Your task to perform on an android device: Add acer predator to the cart on newegg Image 0: 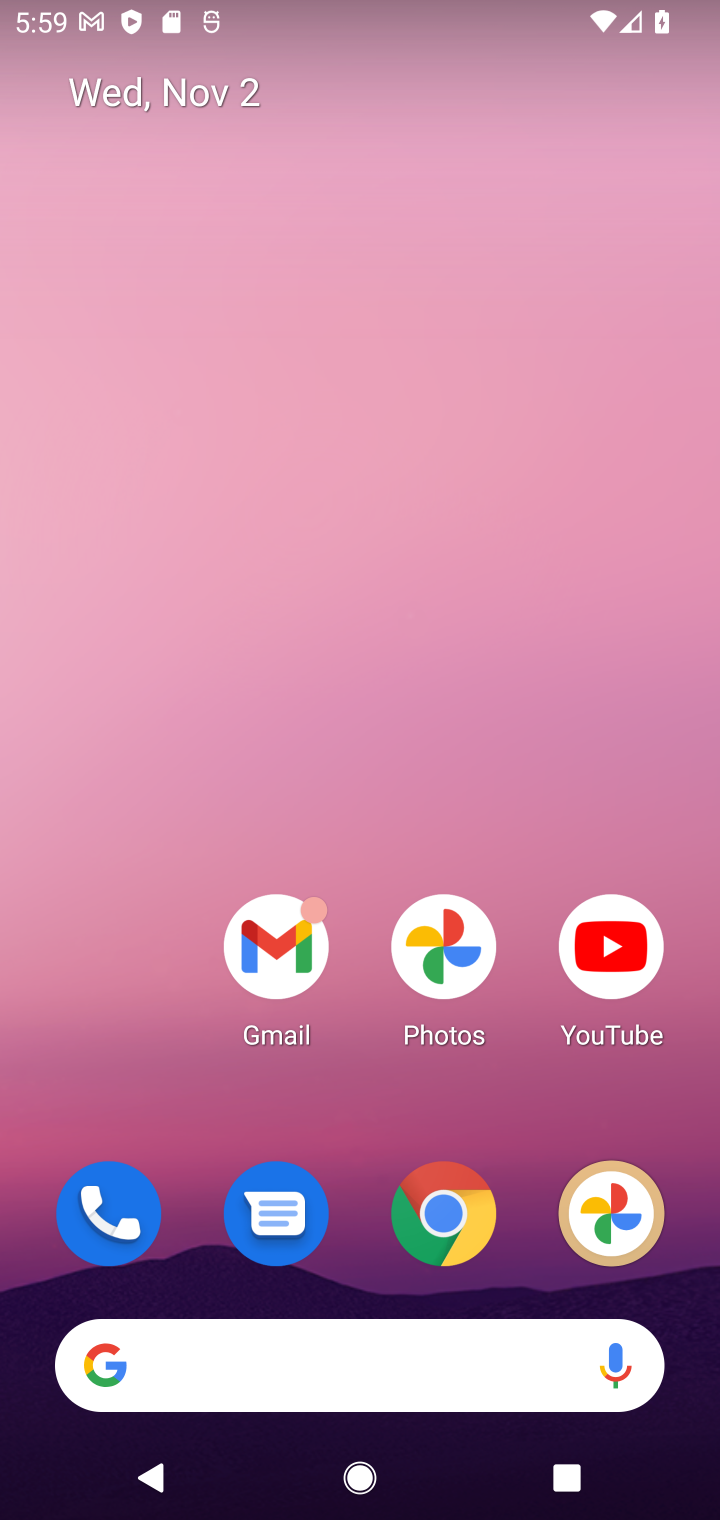
Step 0: click (451, 1209)
Your task to perform on an android device: Add acer predator to the cart on newegg Image 1: 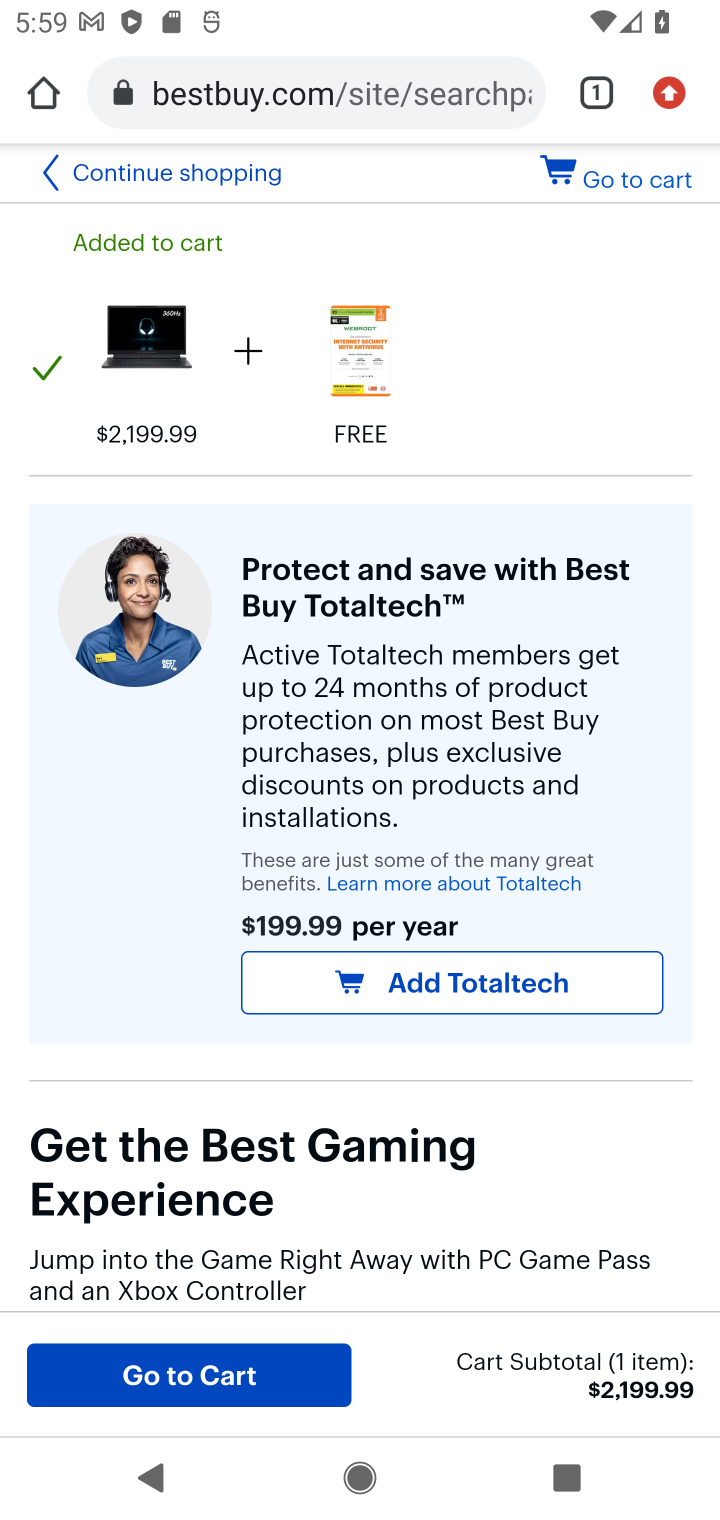
Step 1: click (385, 63)
Your task to perform on an android device: Add acer predator to the cart on newegg Image 2: 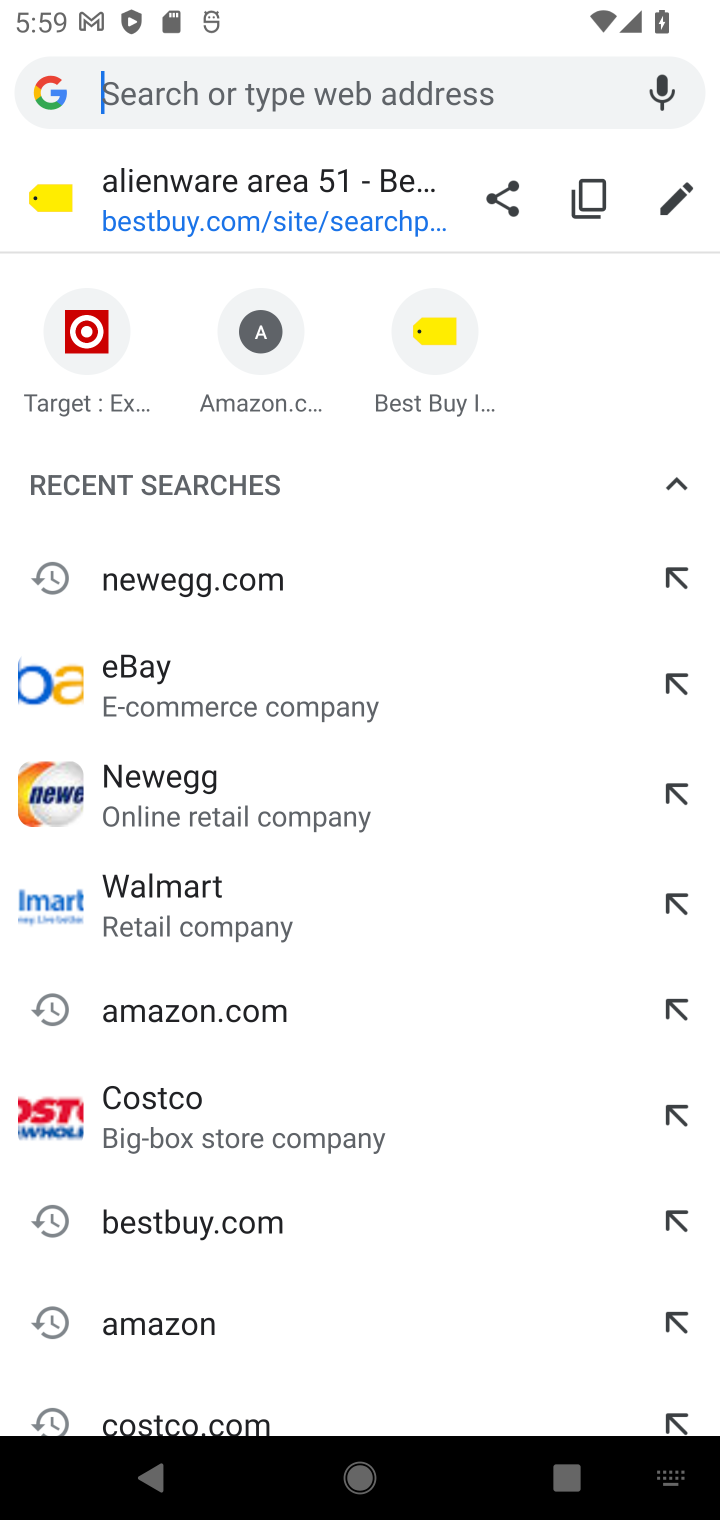
Step 2: click (111, 782)
Your task to perform on an android device: Add acer predator to the cart on newegg Image 3: 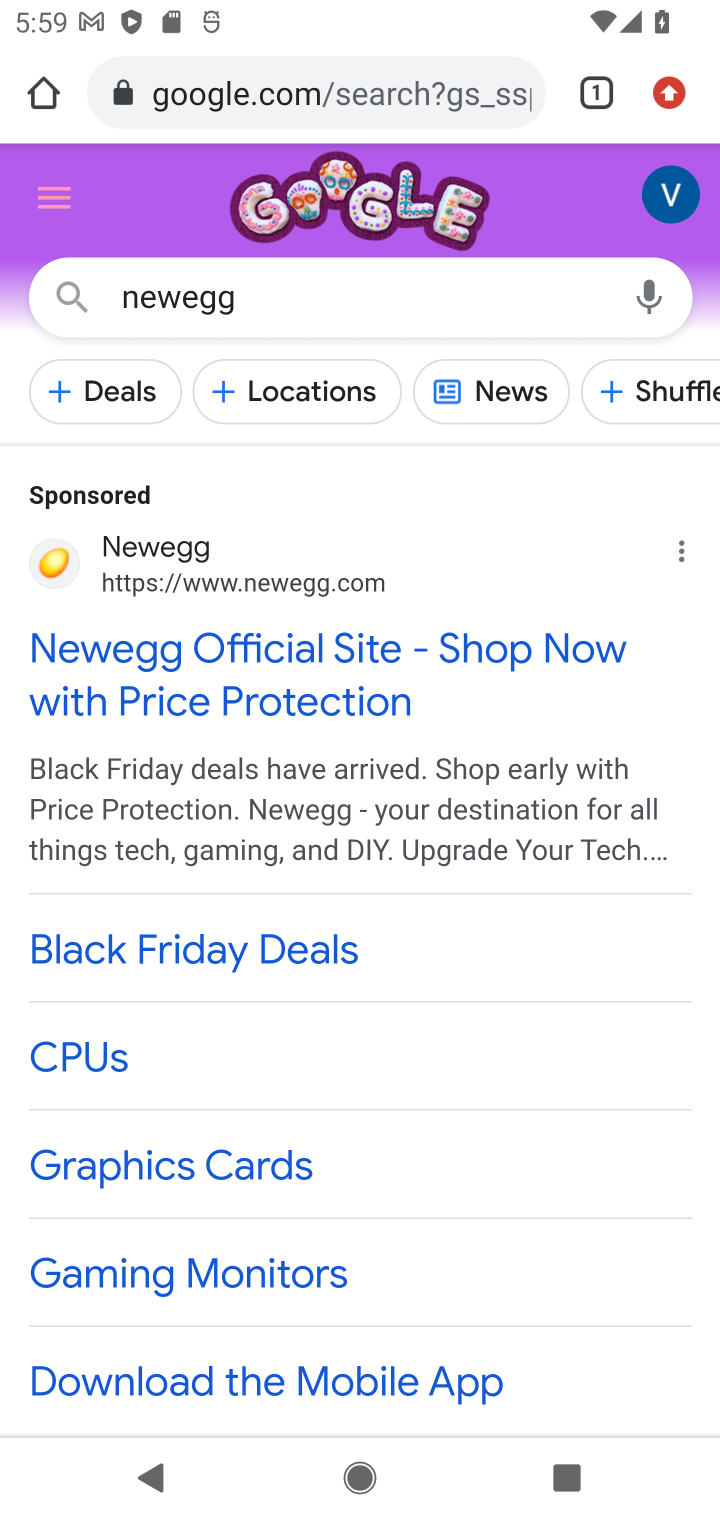
Step 3: click (158, 645)
Your task to perform on an android device: Add acer predator to the cart on newegg Image 4: 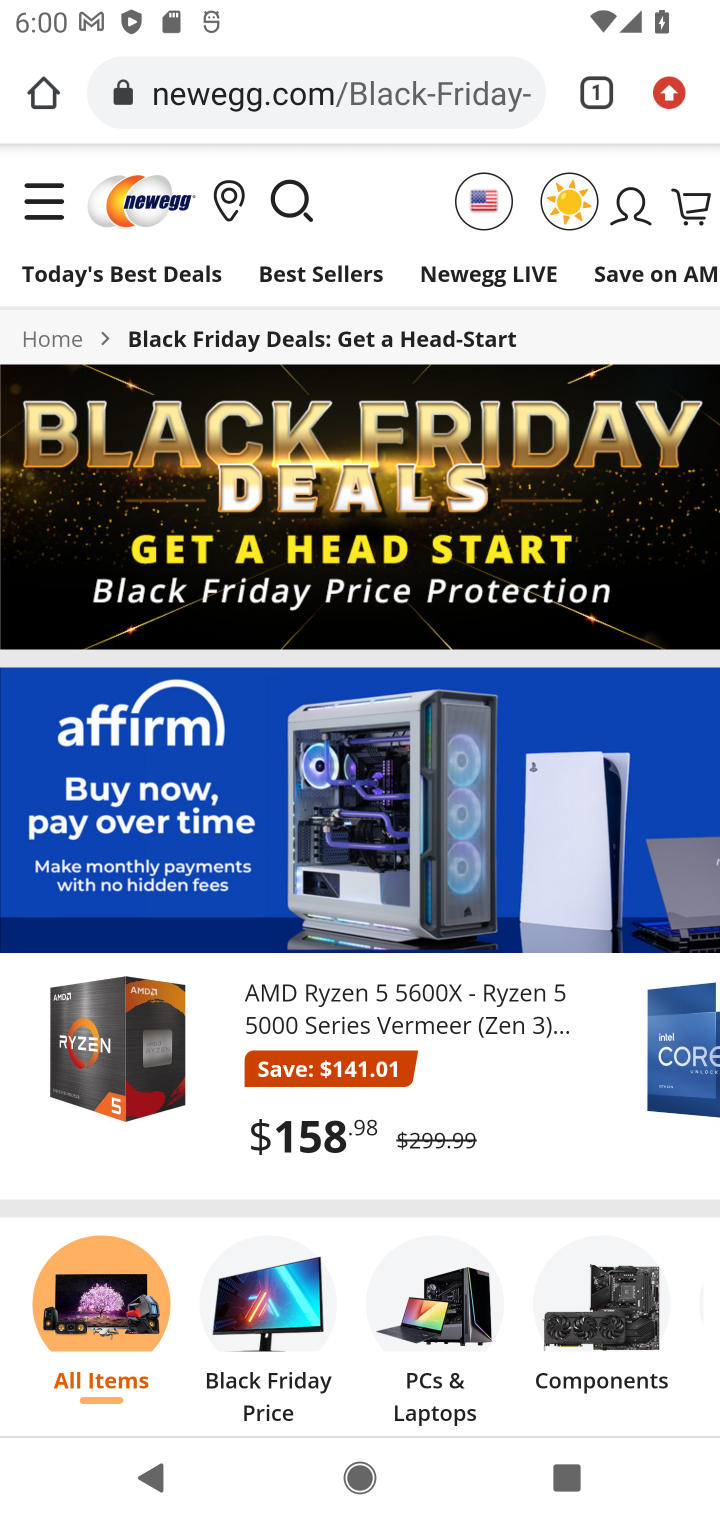
Step 4: click (290, 202)
Your task to perform on an android device: Add acer predator to the cart on newegg Image 5: 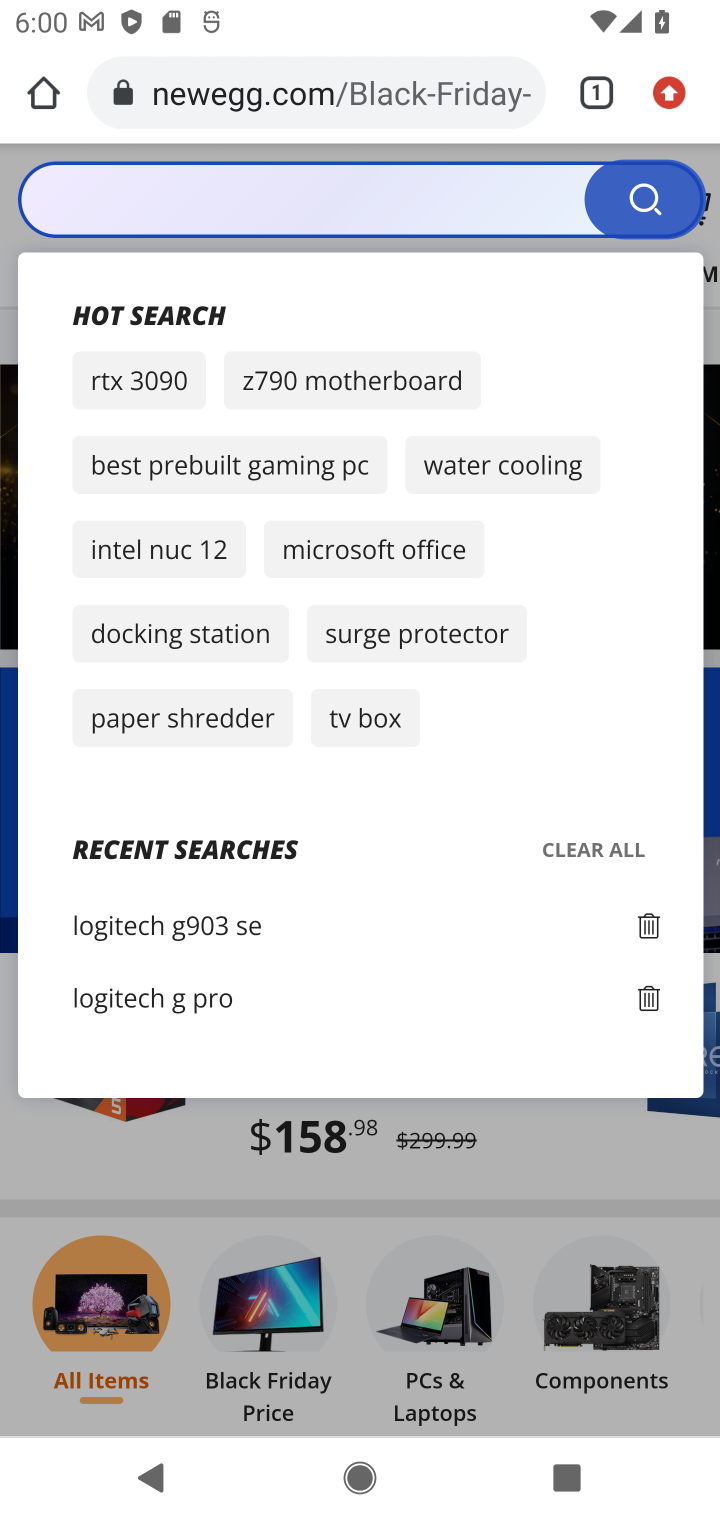
Step 5: click (126, 201)
Your task to perform on an android device: Add acer predator to the cart on newegg Image 6: 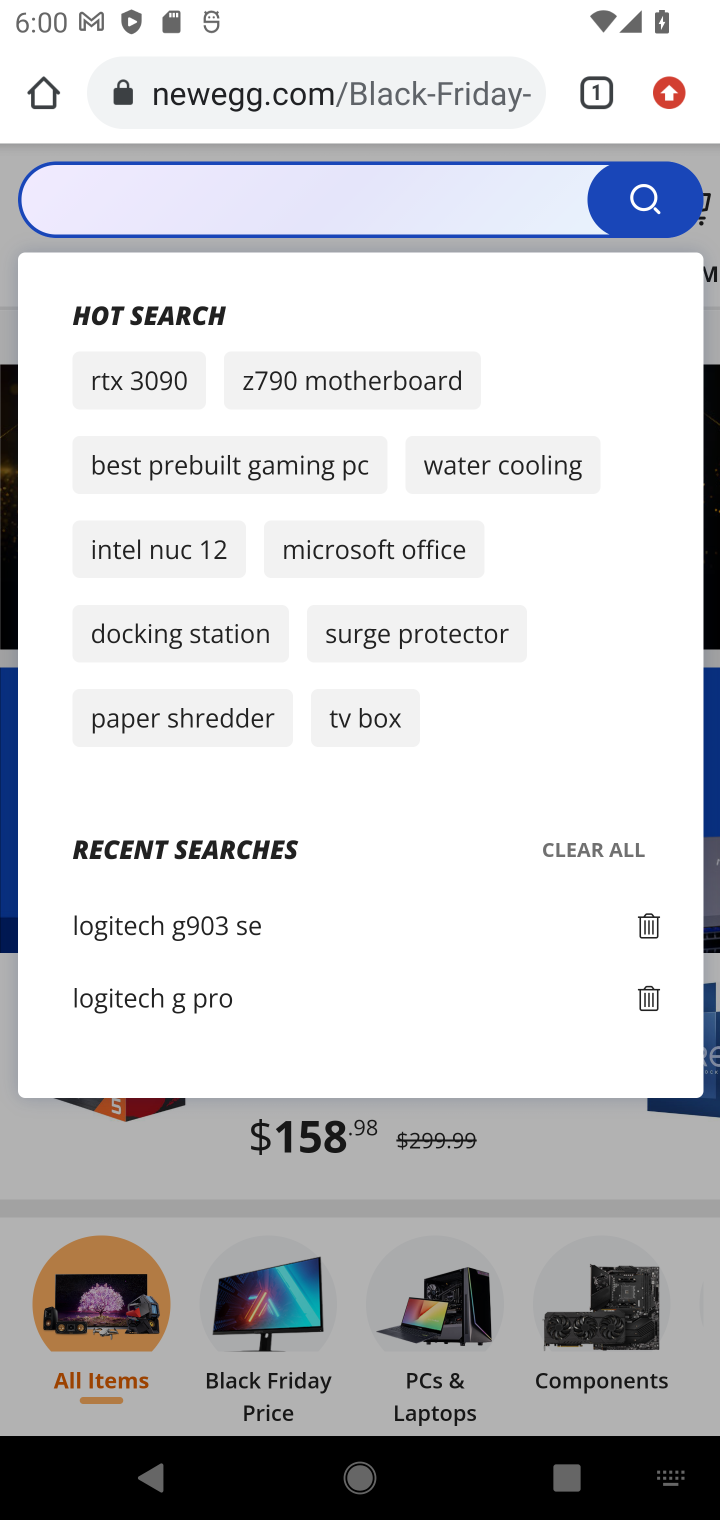
Step 6: click (228, 196)
Your task to perform on an android device: Add acer predator to the cart on newegg Image 7: 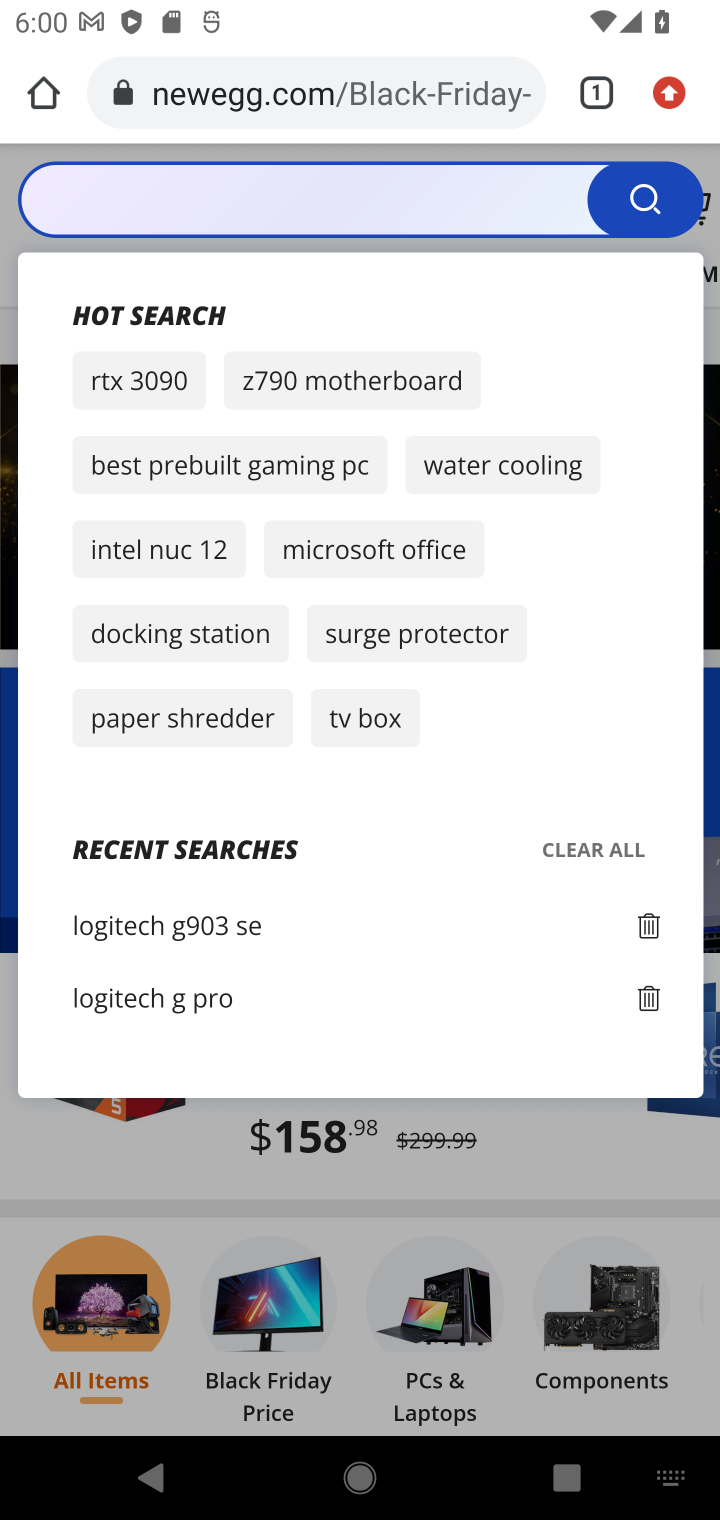
Step 7: type "acer predator"
Your task to perform on an android device: Add acer predator to the cart on newegg Image 8: 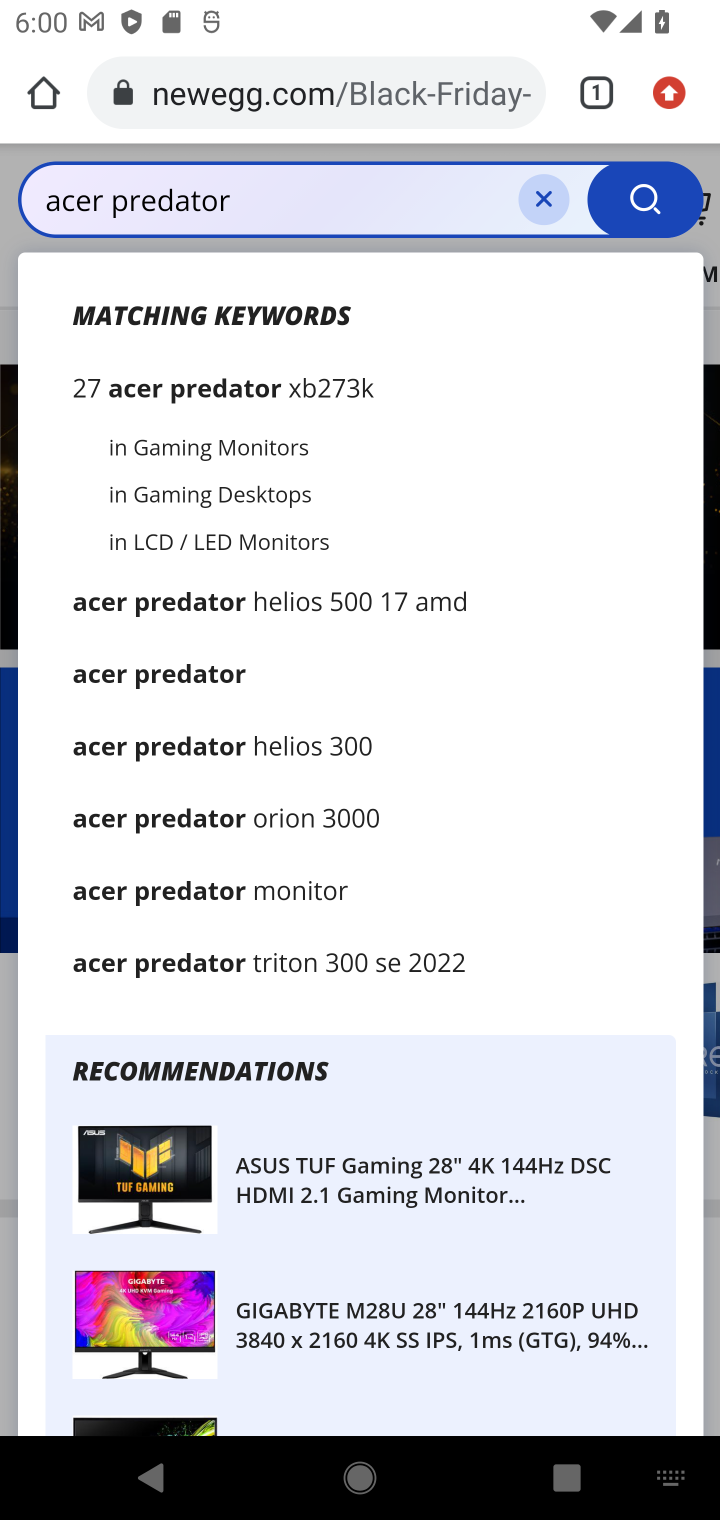
Step 8: click (145, 671)
Your task to perform on an android device: Add acer predator to the cart on newegg Image 9: 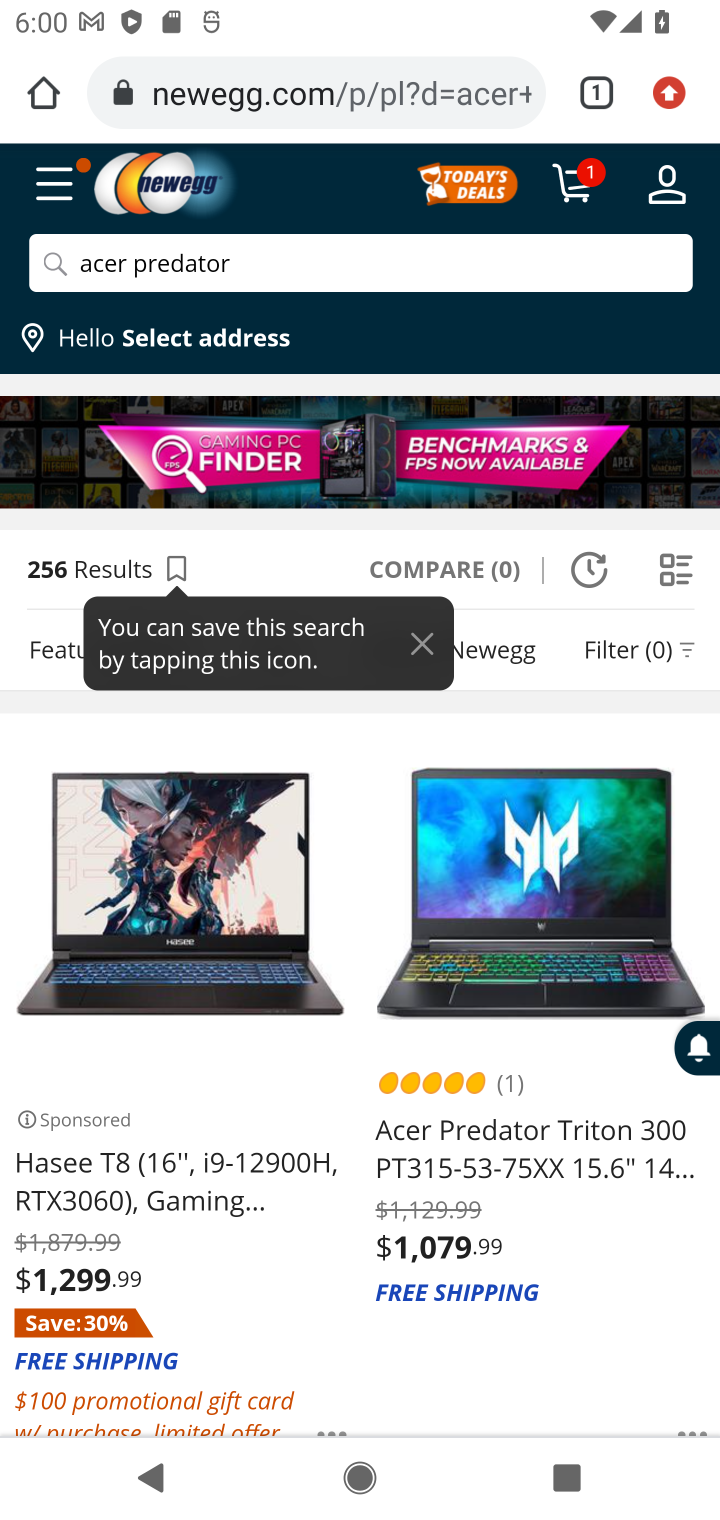
Step 9: drag from (350, 1307) to (373, 1024)
Your task to perform on an android device: Add acer predator to the cart on newegg Image 10: 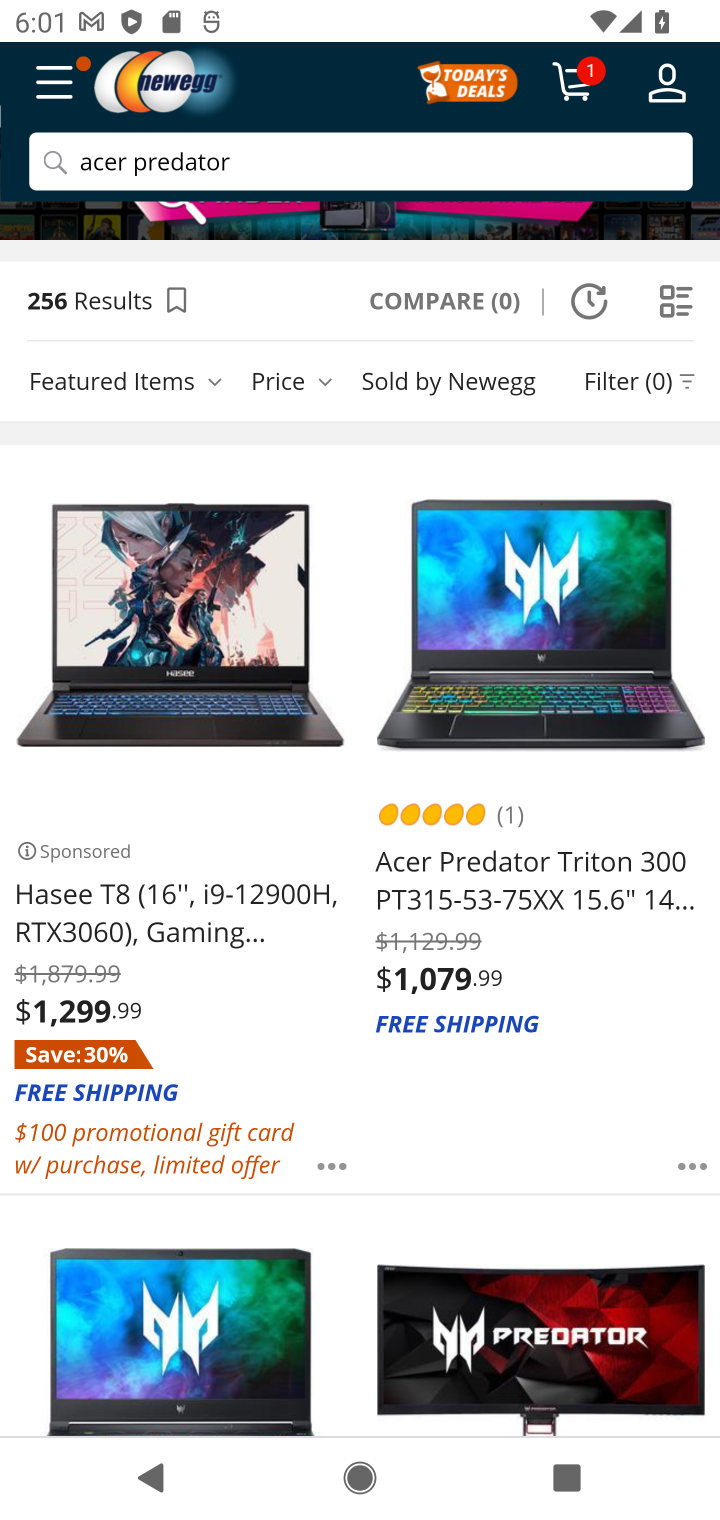
Step 10: click (488, 878)
Your task to perform on an android device: Add acer predator to the cart on newegg Image 11: 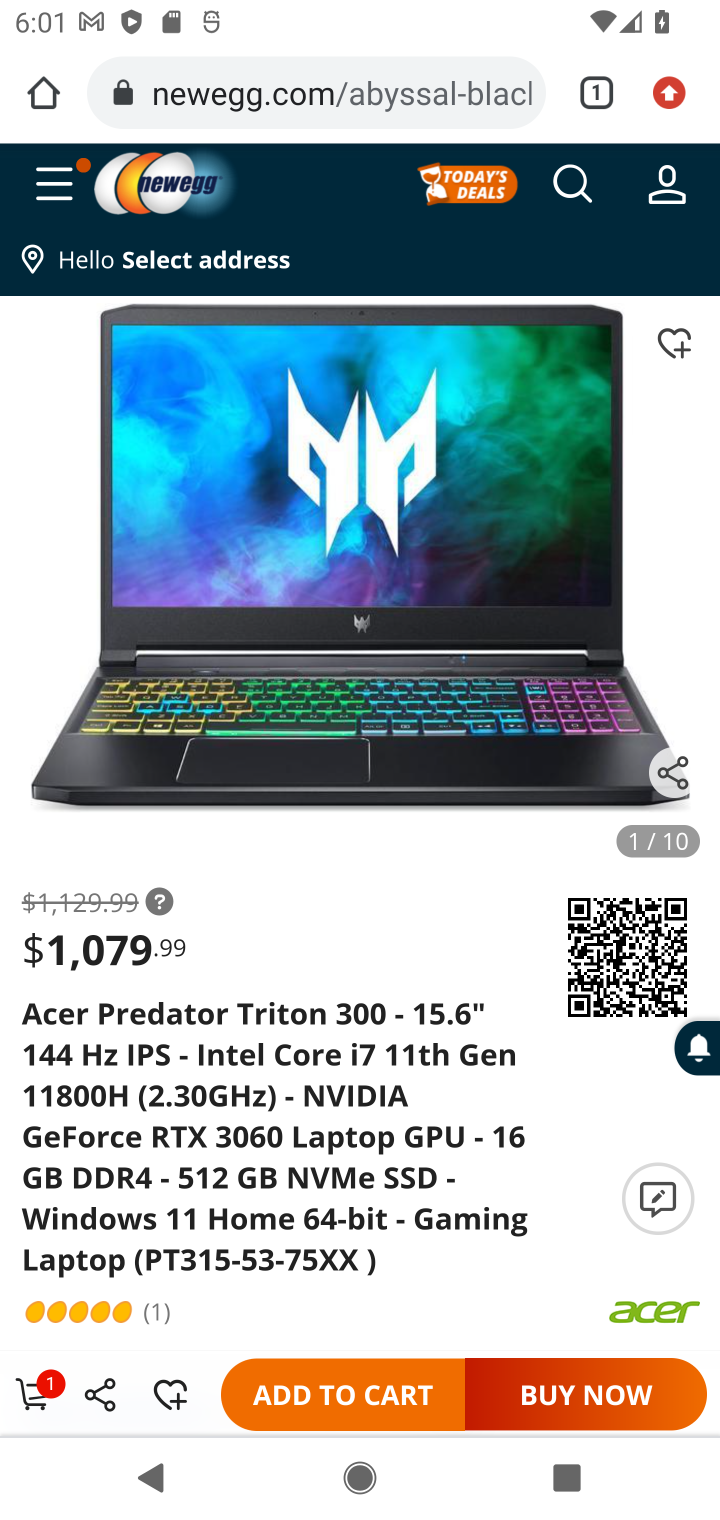
Step 11: click (338, 1393)
Your task to perform on an android device: Add acer predator to the cart on newegg Image 12: 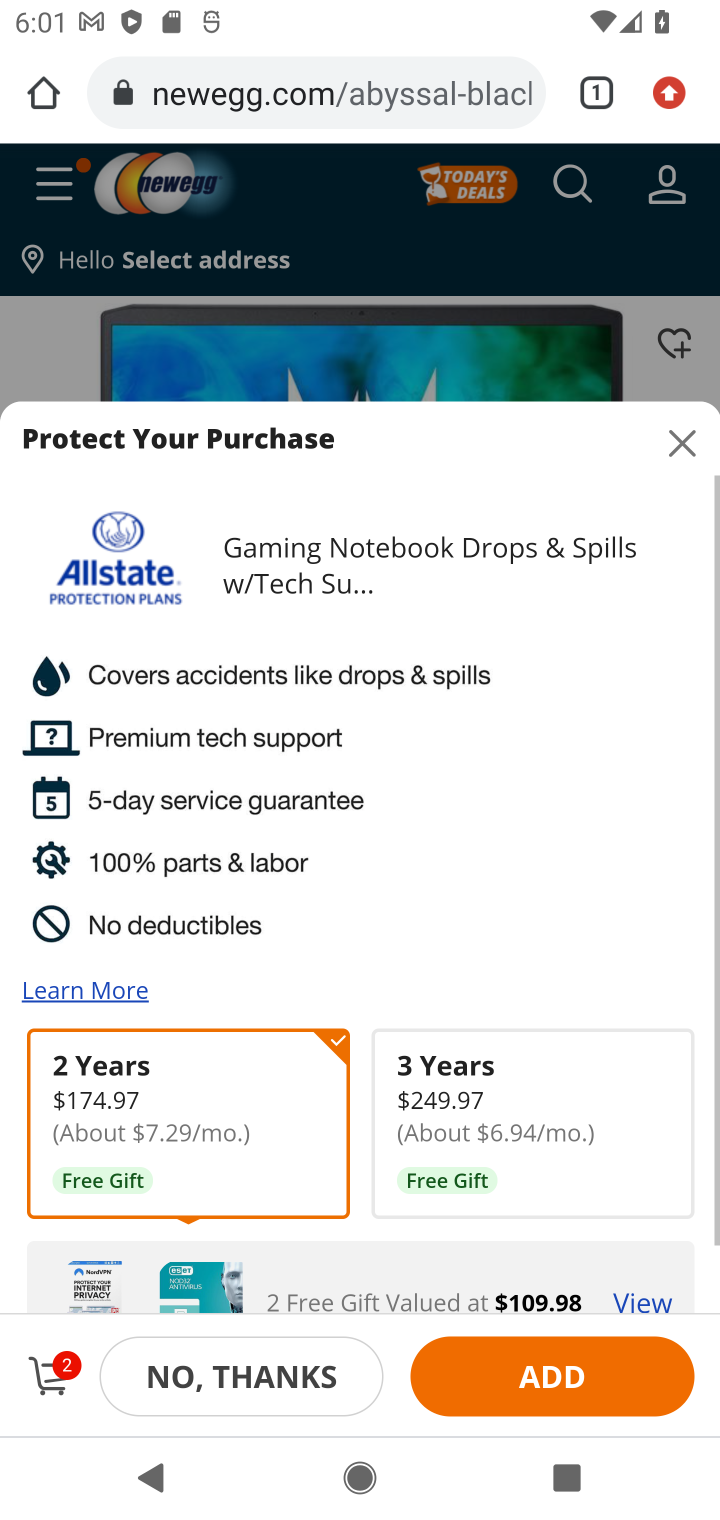
Step 12: task complete